Your task to perform on an android device: turn notification dots off Image 0: 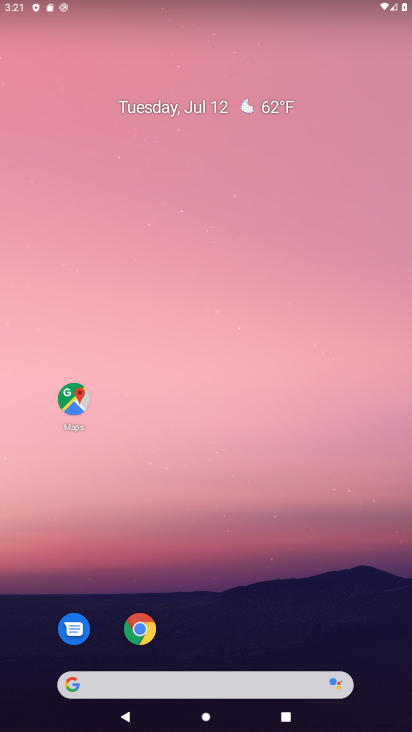
Step 0: drag from (200, 664) to (193, 112)
Your task to perform on an android device: turn notification dots off Image 1: 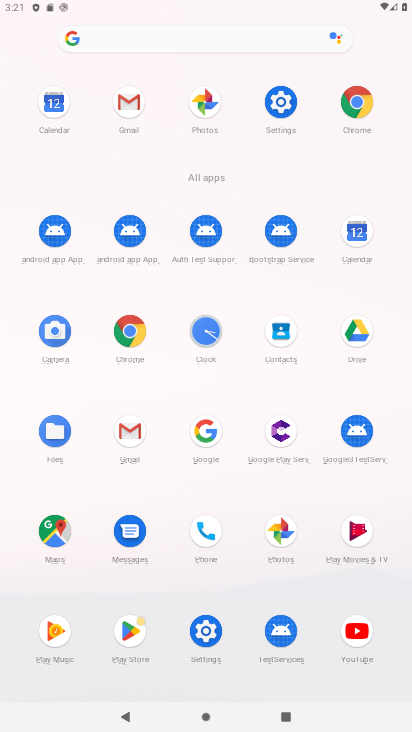
Step 1: click (215, 624)
Your task to perform on an android device: turn notification dots off Image 2: 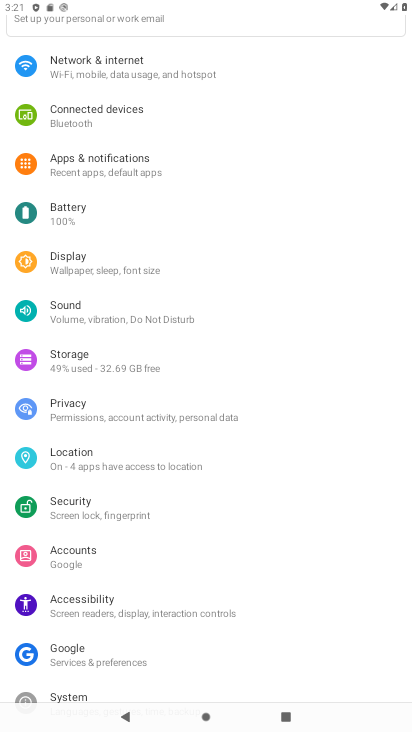
Step 2: click (116, 170)
Your task to perform on an android device: turn notification dots off Image 3: 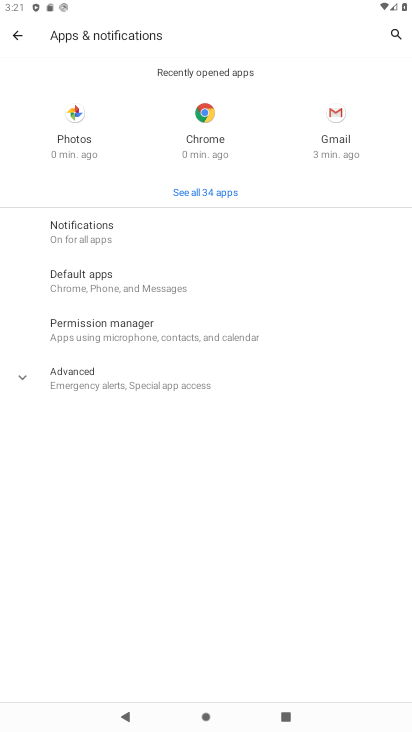
Step 3: click (74, 370)
Your task to perform on an android device: turn notification dots off Image 4: 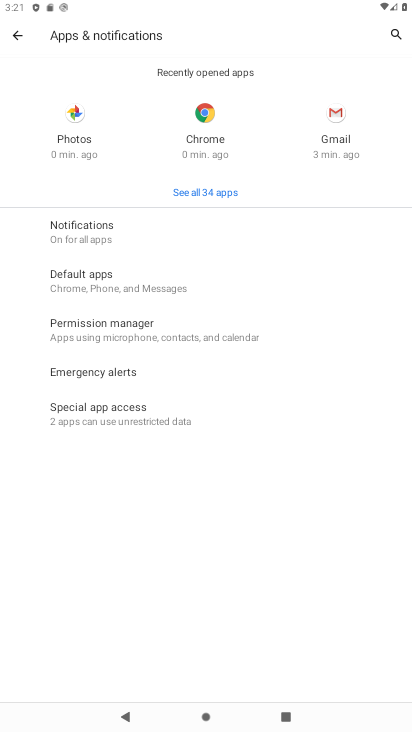
Step 4: click (76, 244)
Your task to perform on an android device: turn notification dots off Image 5: 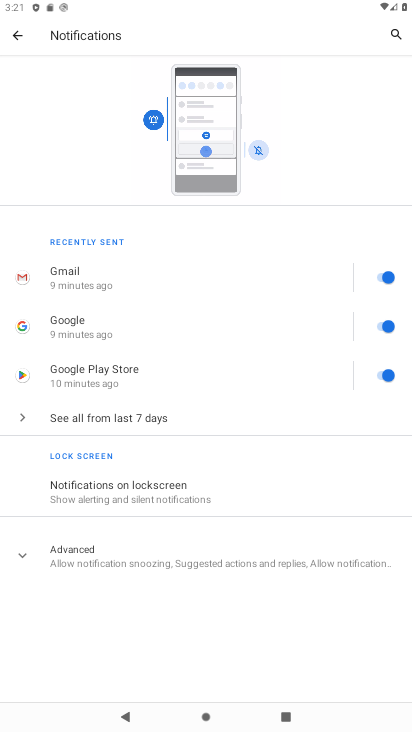
Step 5: click (123, 554)
Your task to perform on an android device: turn notification dots off Image 6: 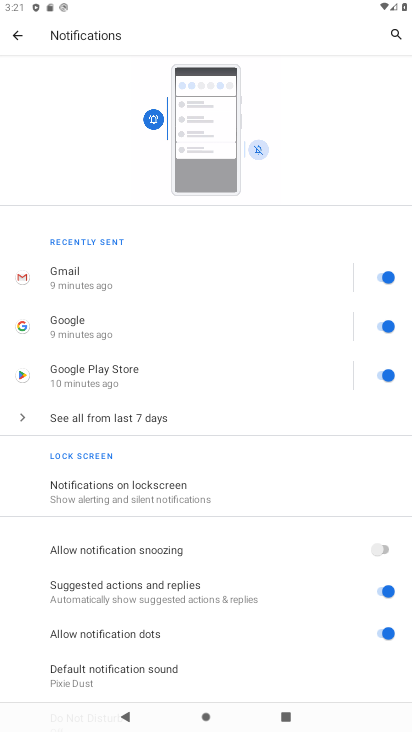
Step 6: click (241, 639)
Your task to perform on an android device: turn notification dots off Image 7: 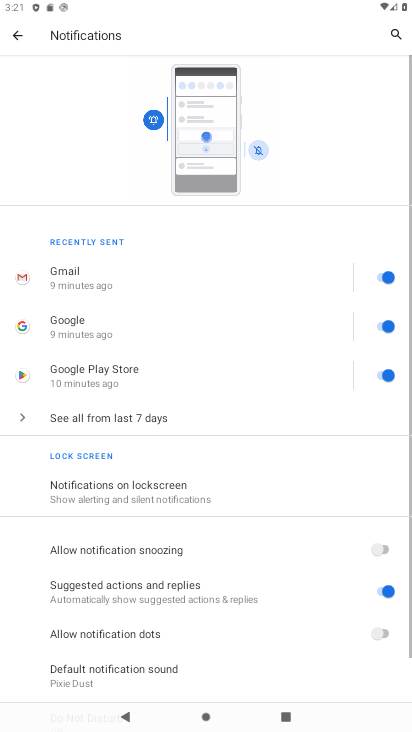
Step 7: task complete